Your task to perform on an android device: Show me the alarms in the clock app Image 0: 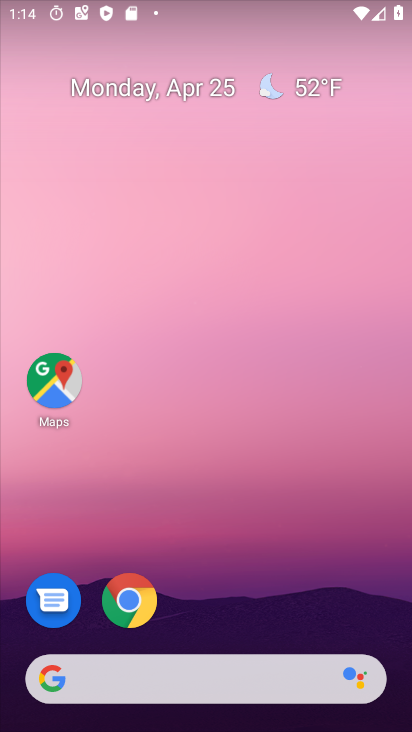
Step 0: drag from (216, 680) to (324, 155)
Your task to perform on an android device: Show me the alarms in the clock app Image 1: 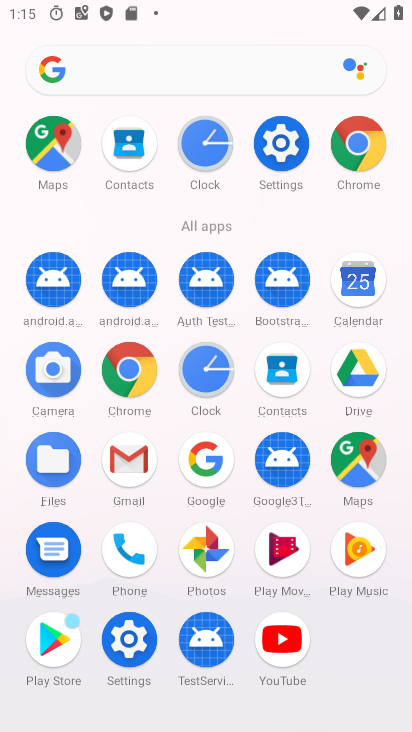
Step 1: click (206, 372)
Your task to perform on an android device: Show me the alarms in the clock app Image 2: 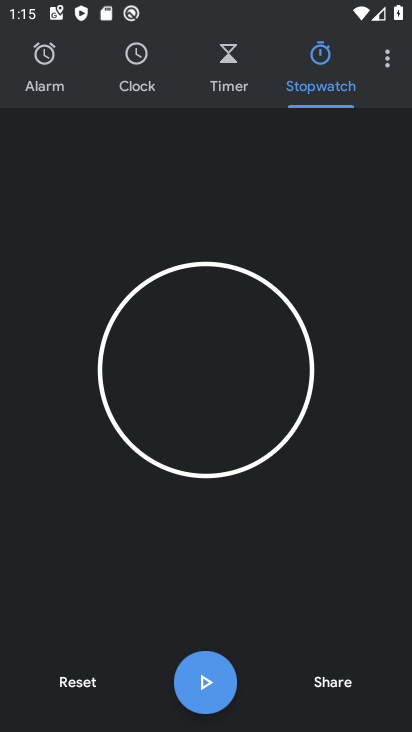
Step 2: click (36, 71)
Your task to perform on an android device: Show me the alarms in the clock app Image 3: 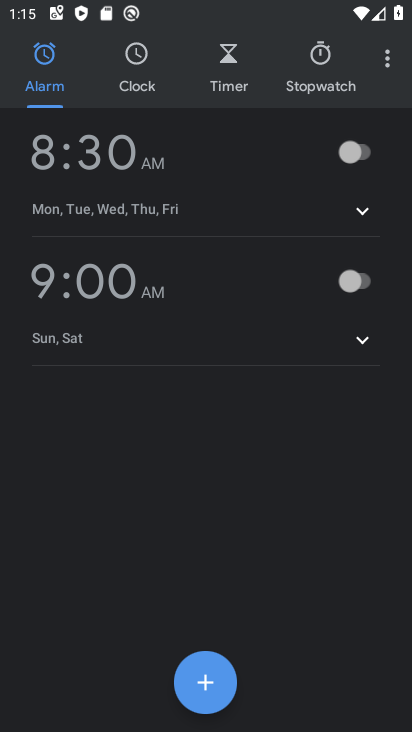
Step 3: task complete